Your task to perform on an android device: What's on my calendar today? Image 0: 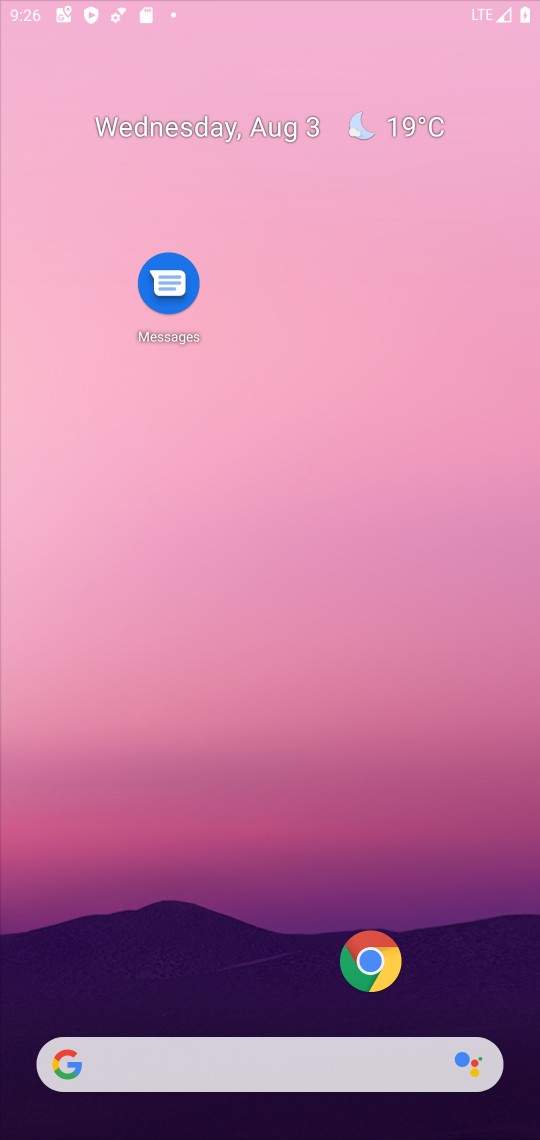
Step 0: drag from (268, 998) to (203, 130)
Your task to perform on an android device: What's on my calendar today? Image 1: 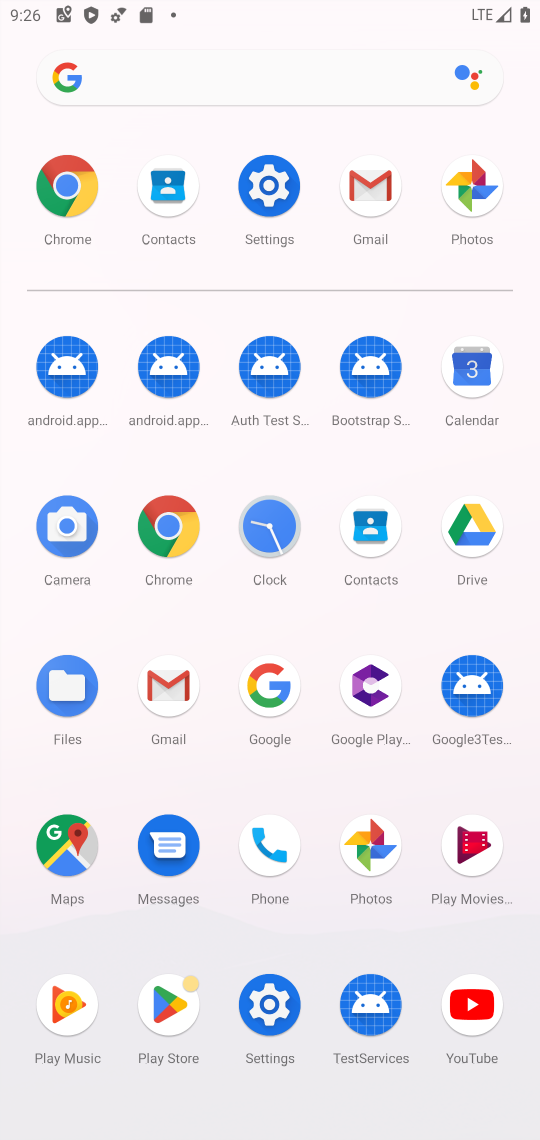
Step 1: click (475, 393)
Your task to perform on an android device: What's on my calendar today? Image 2: 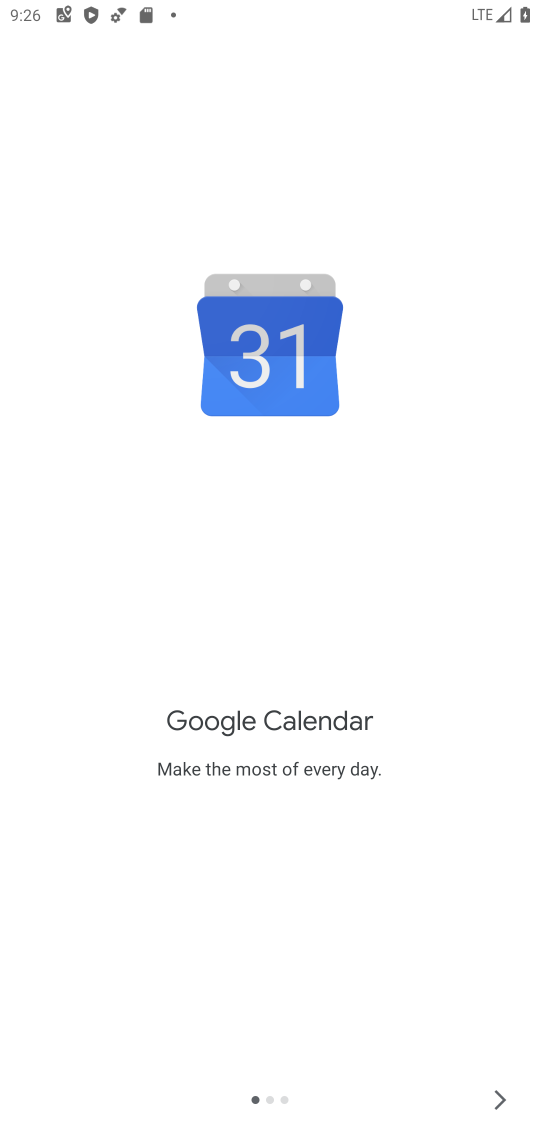
Step 2: click (497, 1095)
Your task to perform on an android device: What's on my calendar today? Image 3: 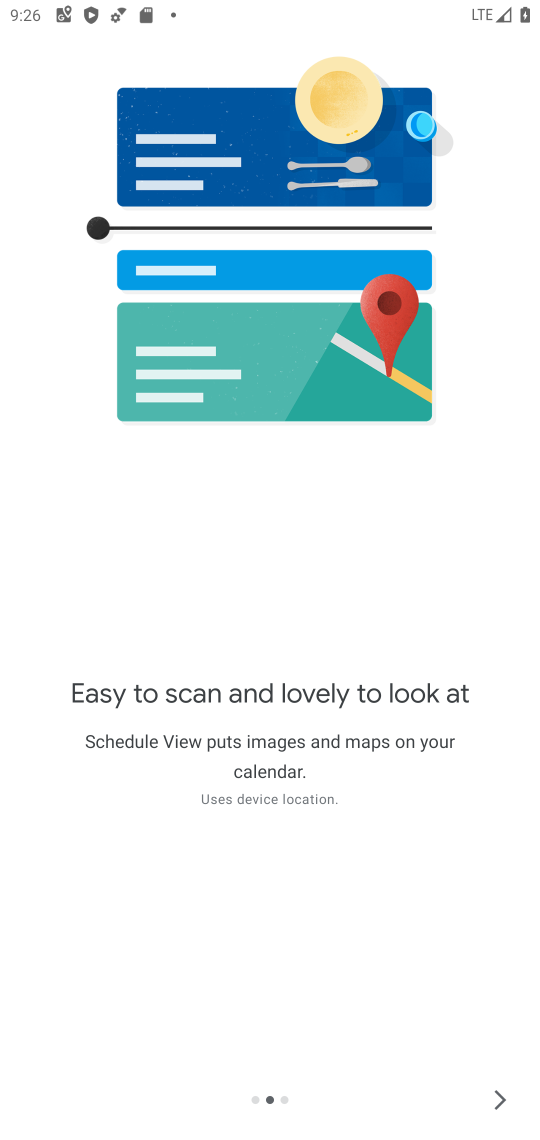
Step 3: click (495, 1098)
Your task to perform on an android device: What's on my calendar today? Image 4: 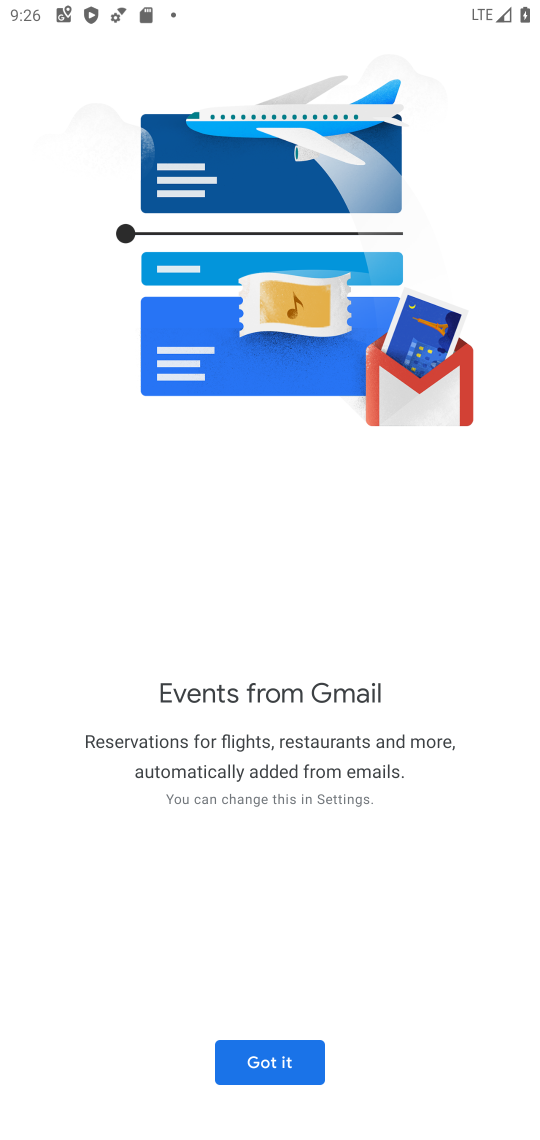
Step 4: click (283, 1039)
Your task to perform on an android device: What's on my calendar today? Image 5: 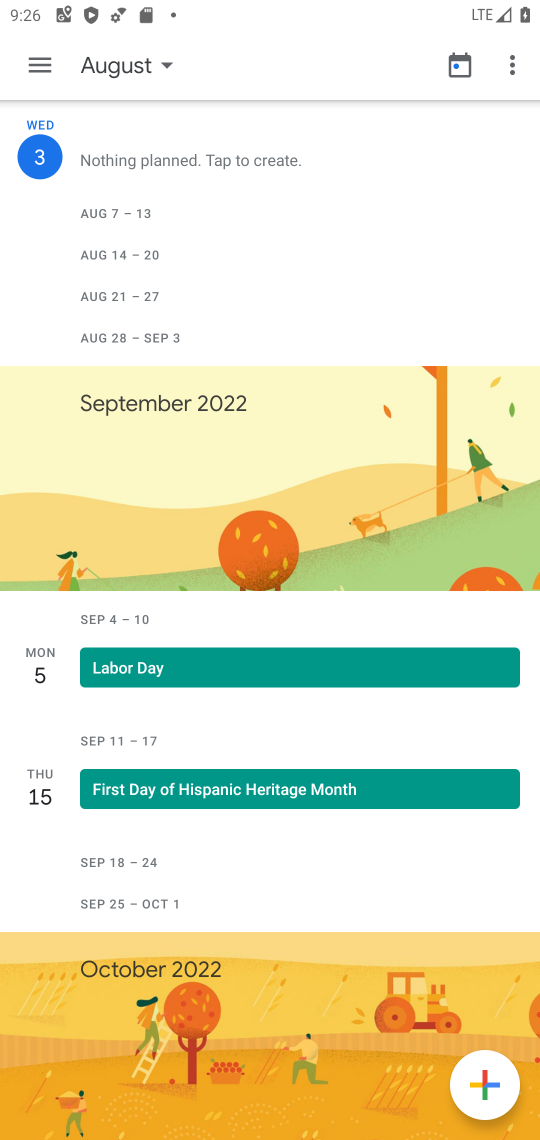
Step 5: click (36, 168)
Your task to perform on an android device: What's on my calendar today? Image 6: 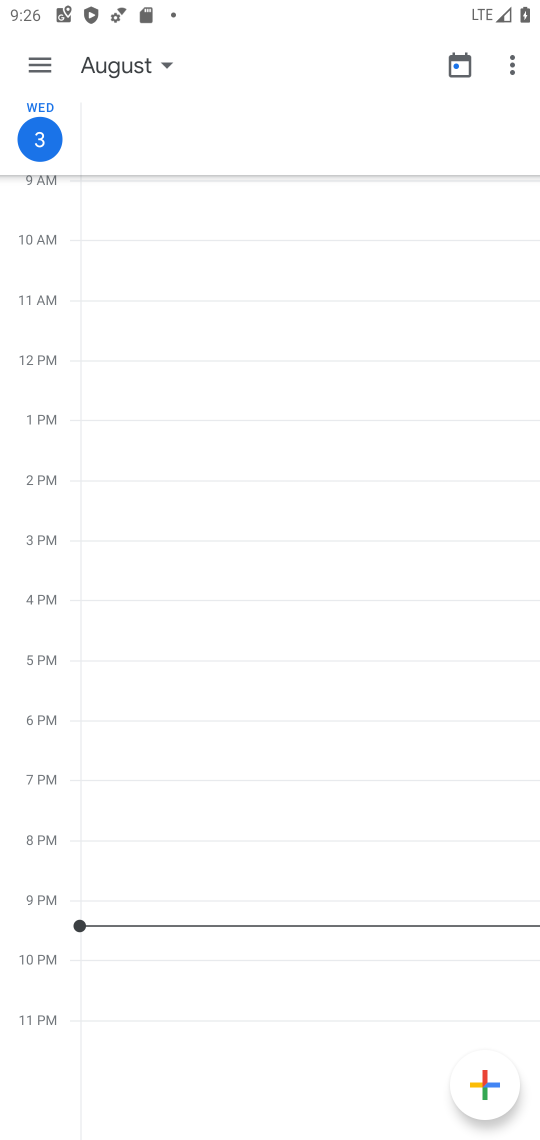
Step 6: task complete